Your task to perform on an android device: change the clock display to analog Image 0: 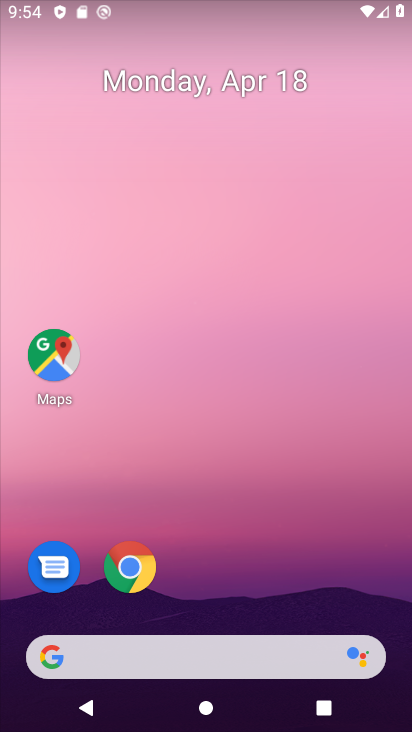
Step 0: drag from (228, 583) to (240, 48)
Your task to perform on an android device: change the clock display to analog Image 1: 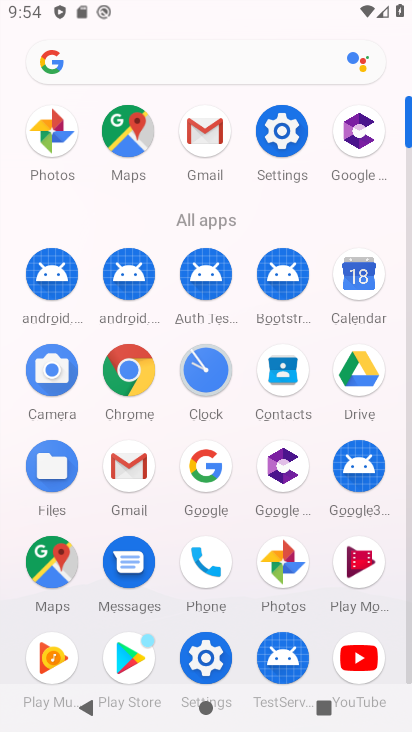
Step 1: click (209, 363)
Your task to perform on an android device: change the clock display to analog Image 2: 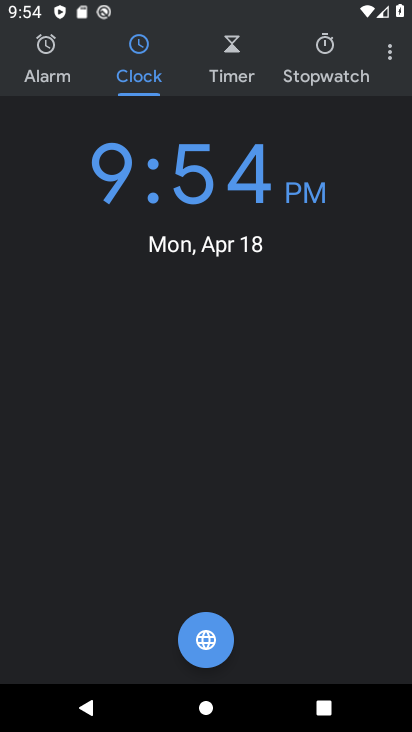
Step 2: click (394, 53)
Your task to perform on an android device: change the clock display to analog Image 3: 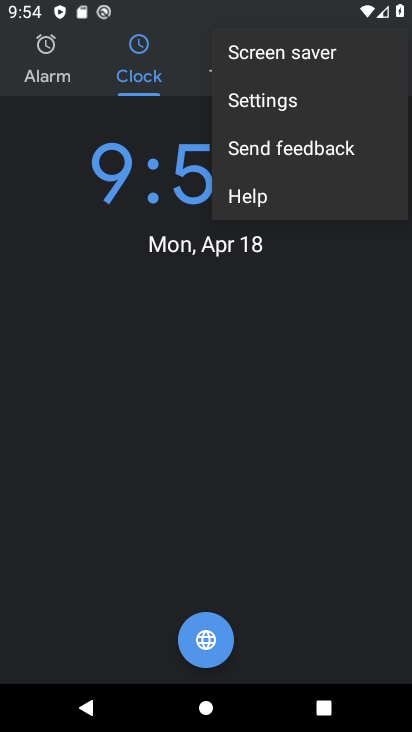
Step 3: click (265, 102)
Your task to perform on an android device: change the clock display to analog Image 4: 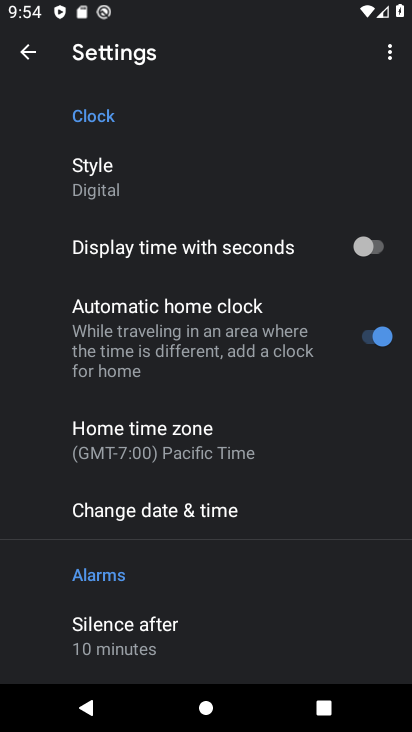
Step 4: click (102, 180)
Your task to perform on an android device: change the clock display to analog Image 5: 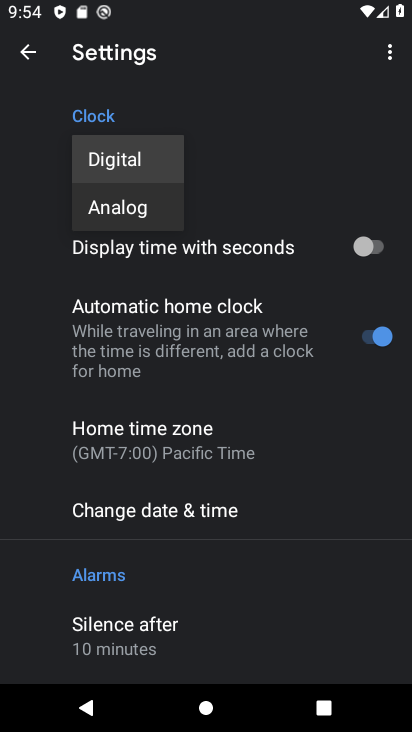
Step 5: click (139, 208)
Your task to perform on an android device: change the clock display to analog Image 6: 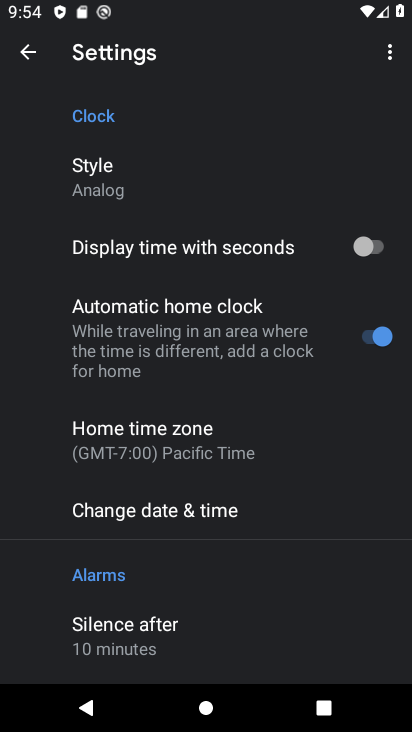
Step 6: task complete